Your task to perform on an android device: Clear the shopping cart on costco.com. Search for lenovo thinkpad on costco.com, select the first entry, and add it to the cart. Image 0: 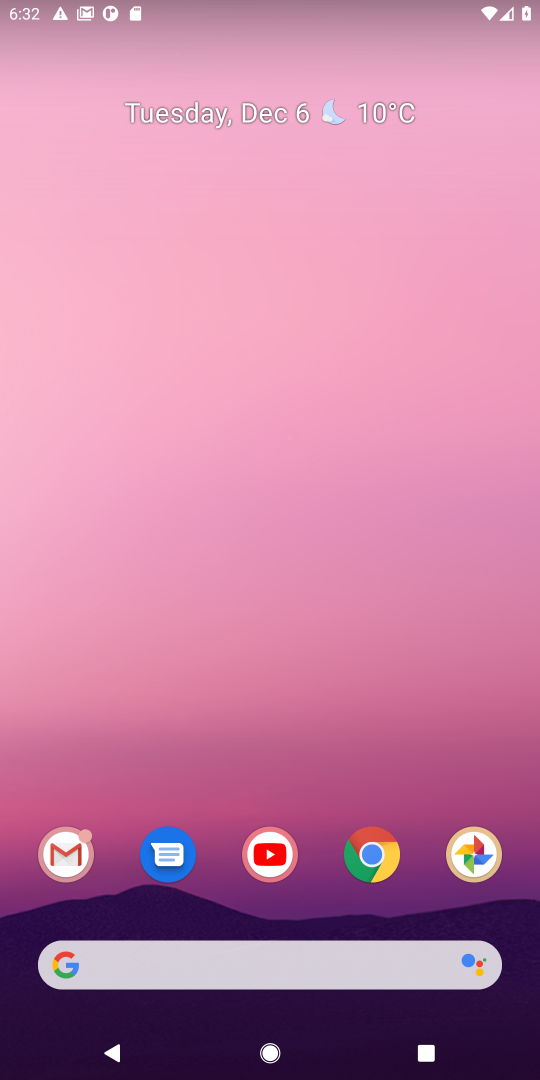
Step 0: click (371, 850)
Your task to perform on an android device: Clear the shopping cart on costco.com. Search for lenovo thinkpad on costco.com, select the first entry, and add it to the cart. Image 1: 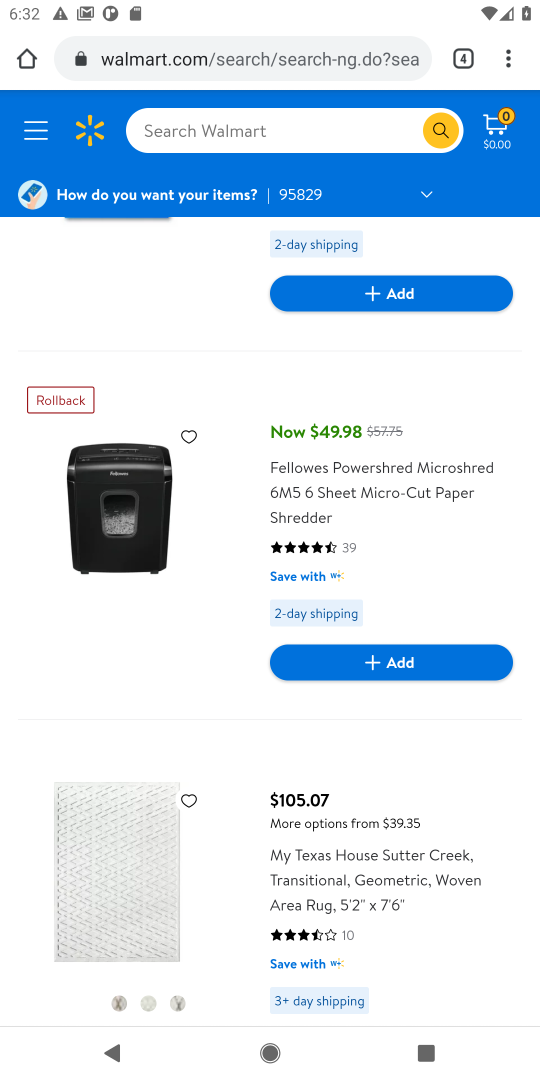
Step 1: click (455, 48)
Your task to perform on an android device: Clear the shopping cart on costco.com. Search for lenovo thinkpad on costco.com, select the first entry, and add it to the cart. Image 2: 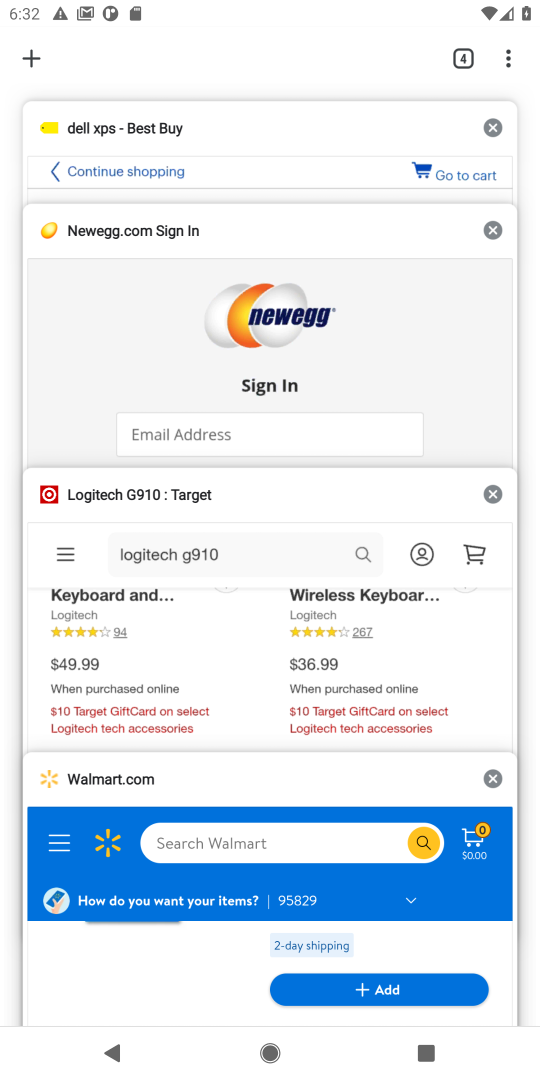
Step 2: click (30, 68)
Your task to perform on an android device: Clear the shopping cart on costco.com. Search for lenovo thinkpad on costco.com, select the first entry, and add it to the cart. Image 3: 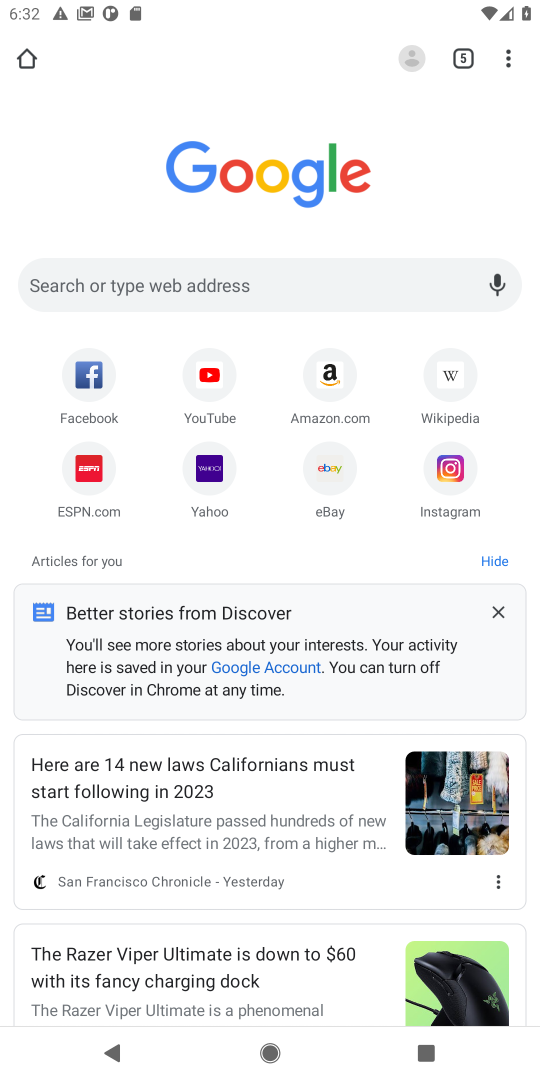
Step 3: click (225, 298)
Your task to perform on an android device: Clear the shopping cart on costco.com. Search for lenovo thinkpad on costco.com, select the first entry, and add it to the cart. Image 4: 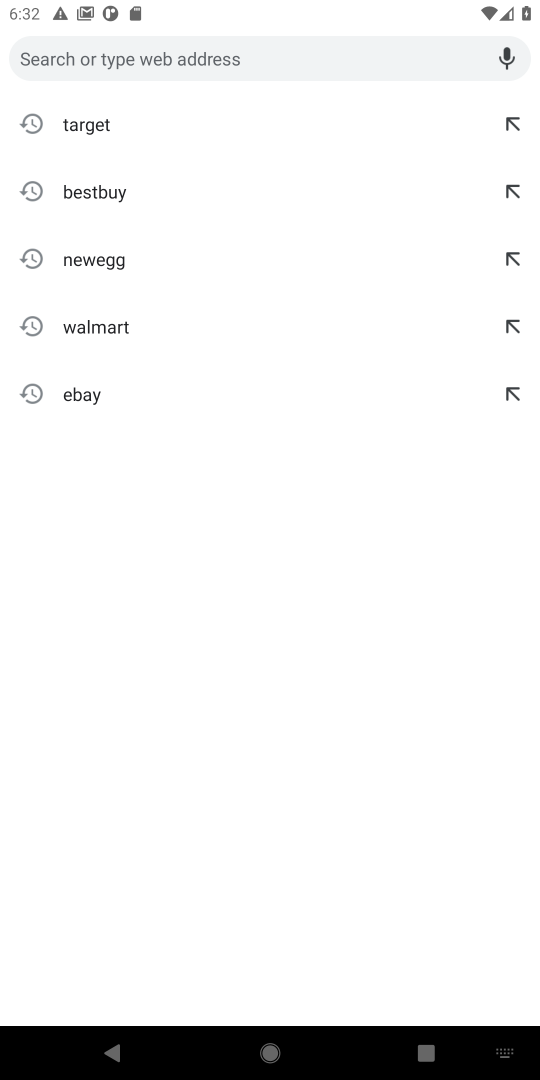
Step 4: type "costco"
Your task to perform on an android device: Clear the shopping cart on costco.com. Search for lenovo thinkpad on costco.com, select the first entry, and add it to the cart. Image 5: 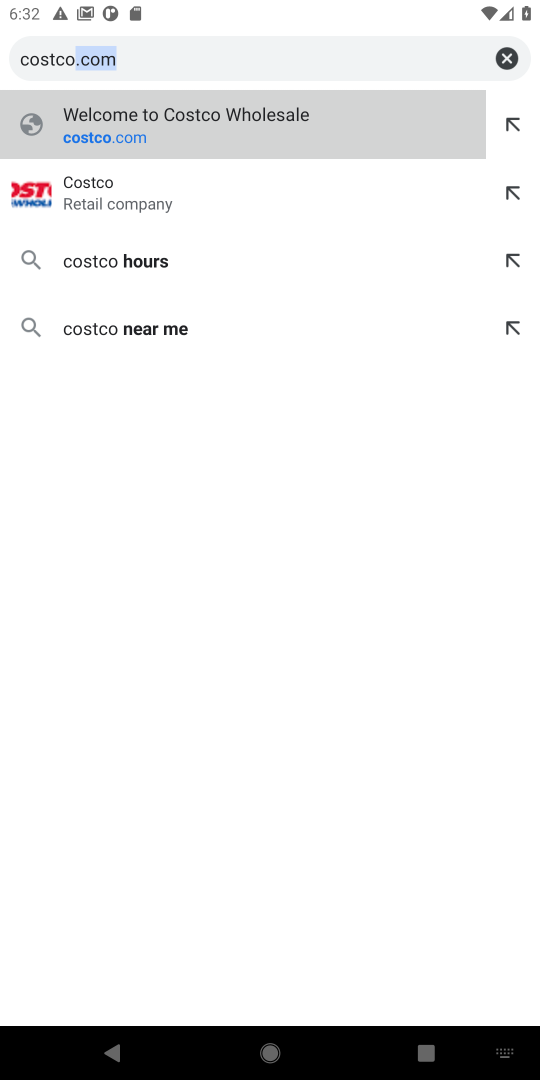
Step 5: click (179, 177)
Your task to perform on an android device: Clear the shopping cart on costco.com. Search for lenovo thinkpad on costco.com, select the first entry, and add it to the cart. Image 6: 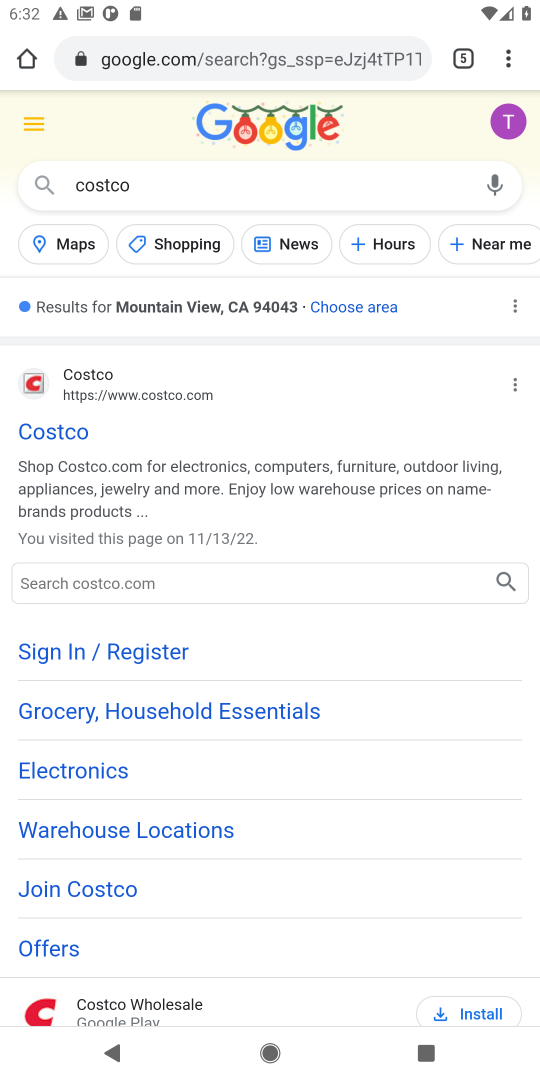
Step 6: click (155, 595)
Your task to perform on an android device: Clear the shopping cart on costco.com. Search for lenovo thinkpad on costco.com, select the first entry, and add it to the cart. Image 7: 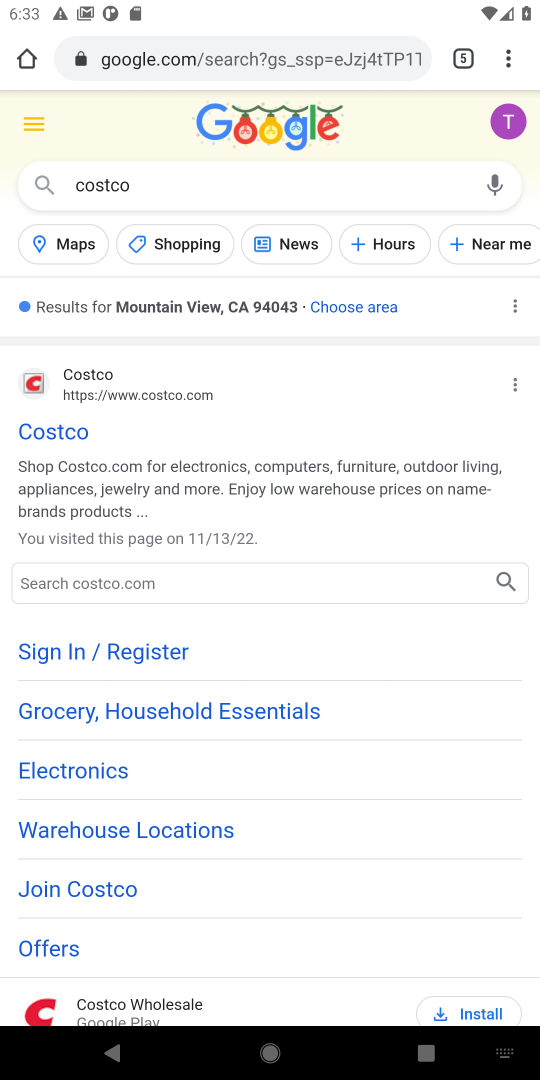
Step 7: type "lenovo thinkpad"
Your task to perform on an android device: Clear the shopping cart on costco.com. Search for lenovo thinkpad on costco.com, select the first entry, and add it to the cart. Image 8: 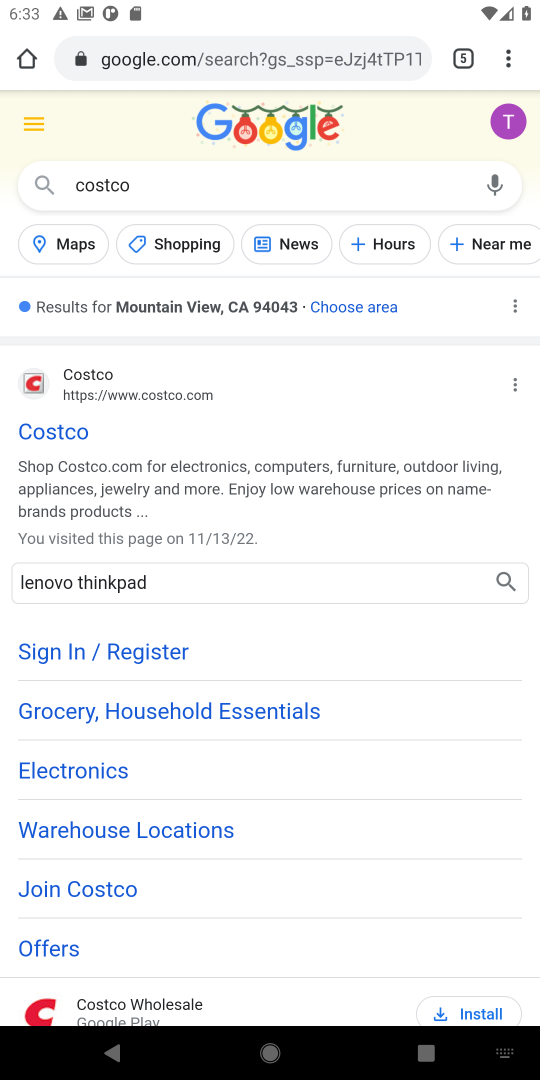
Step 8: click (511, 571)
Your task to perform on an android device: Clear the shopping cart on costco.com. Search for lenovo thinkpad on costco.com, select the first entry, and add it to the cart. Image 9: 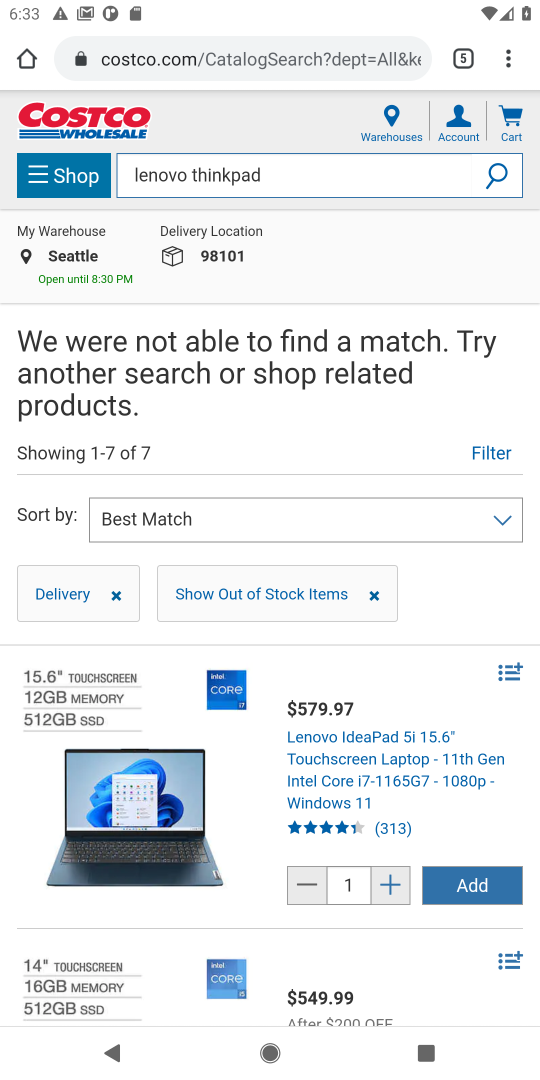
Step 9: task complete